Your task to perform on an android device: turn on wifi Image 0: 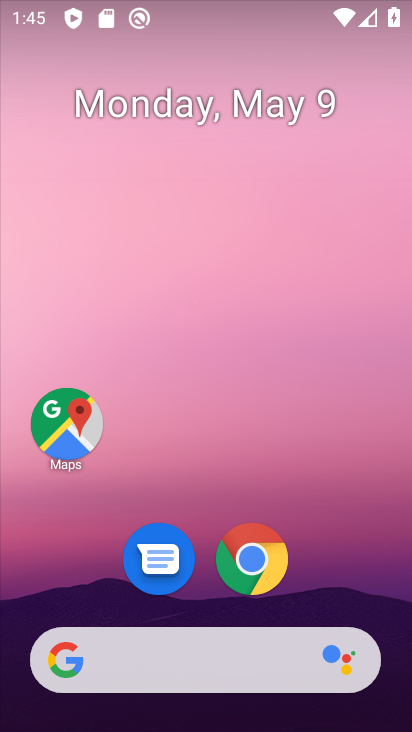
Step 0: click (357, 515)
Your task to perform on an android device: turn on wifi Image 1: 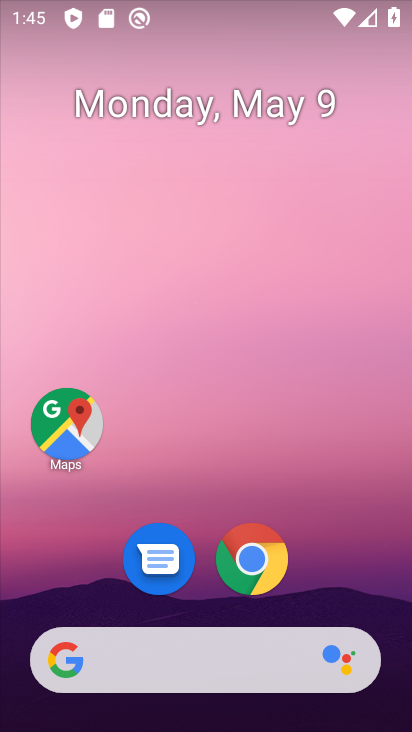
Step 1: drag from (380, 565) to (301, 145)
Your task to perform on an android device: turn on wifi Image 2: 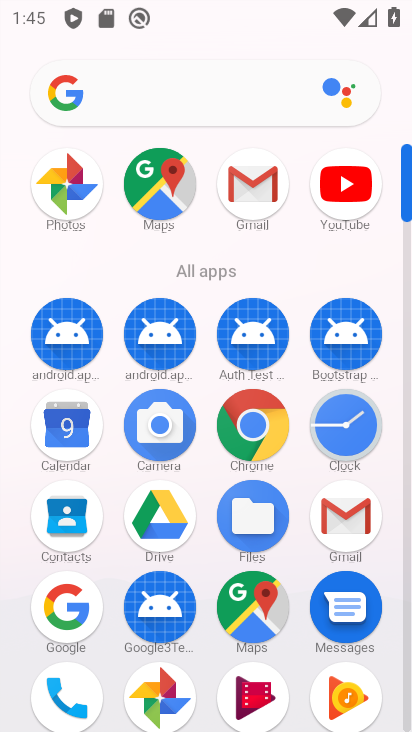
Step 2: drag from (210, 565) to (221, 209)
Your task to perform on an android device: turn on wifi Image 3: 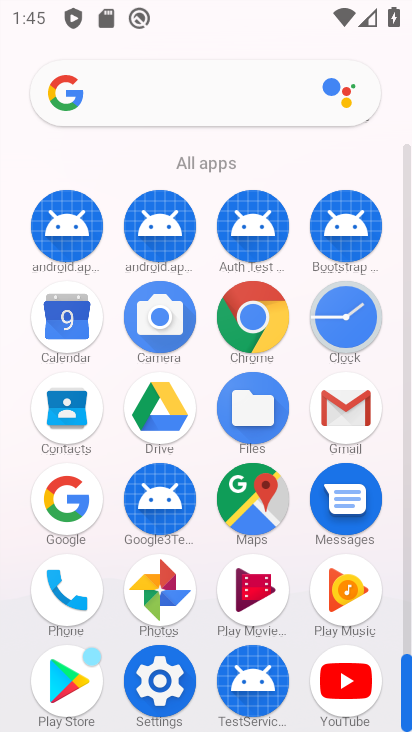
Step 3: click (135, 670)
Your task to perform on an android device: turn on wifi Image 4: 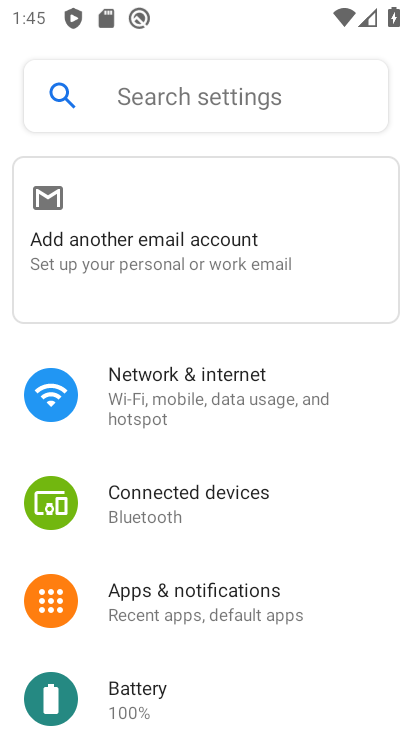
Step 4: click (206, 385)
Your task to perform on an android device: turn on wifi Image 5: 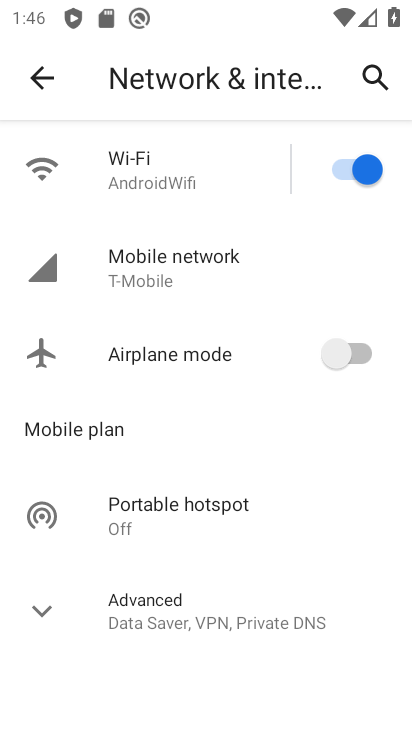
Step 5: press home button
Your task to perform on an android device: turn on wifi Image 6: 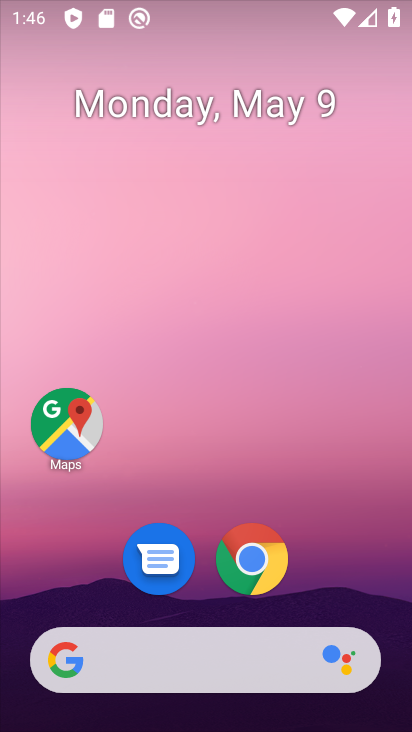
Step 6: drag from (337, 379) to (281, 57)
Your task to perform on an android device: turn on wifi Image 7: 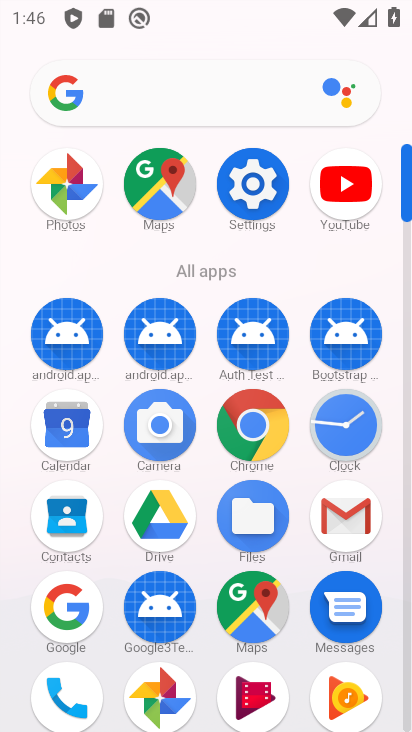
Step 7: click (246, 166)
Your task to perform on an android device: turn on wifi Image 8: 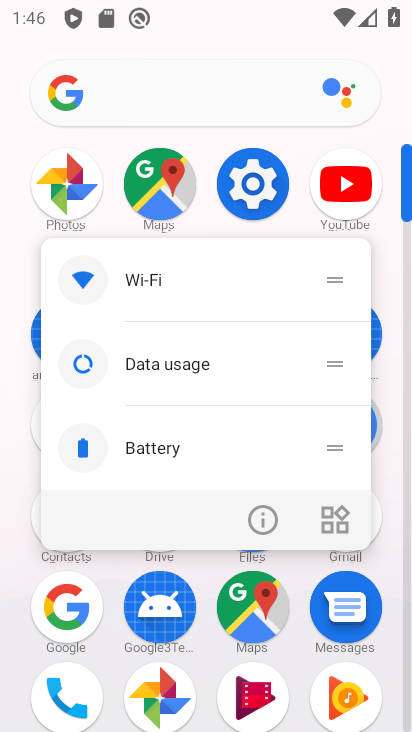
Step 8: click (247, 178)
Your task to perform on an android device: turn on wifi Image 9: 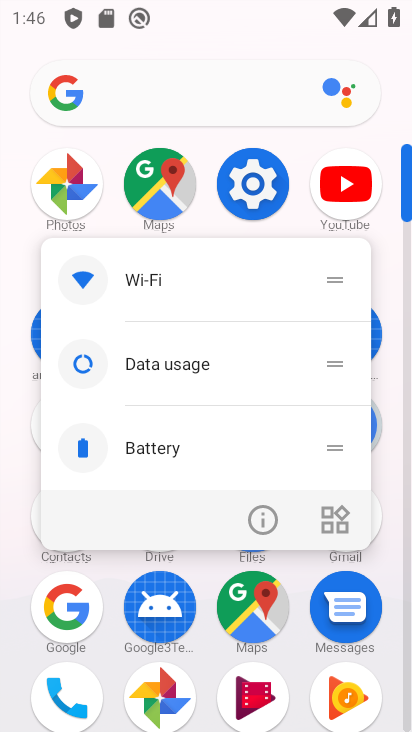
Step 9: click (245, 207)
Your task to perform on an android device: turn on wifi Image 10: 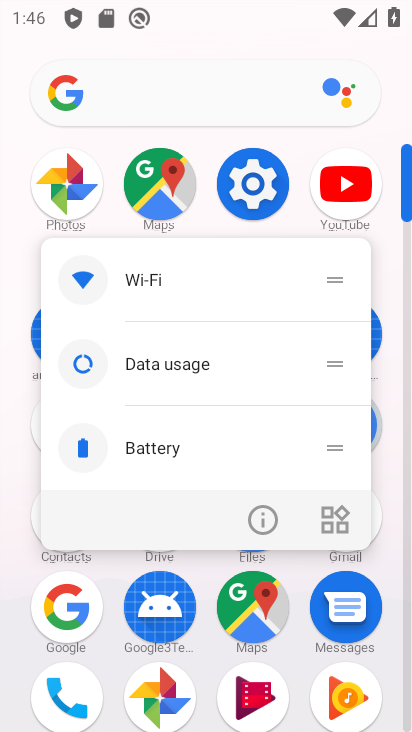
Step 10: click (247, 208)
Your task to perform on an android device: turn on wifi Image 11: 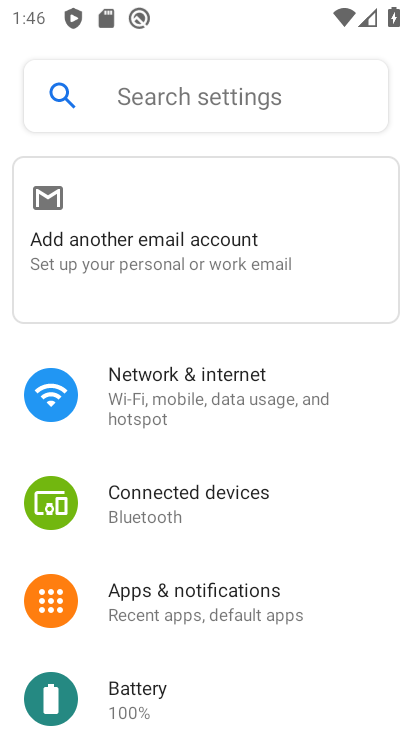
Step 11: click (252, 396)
Your task to perform on an android device: turn on wifi Image 12: 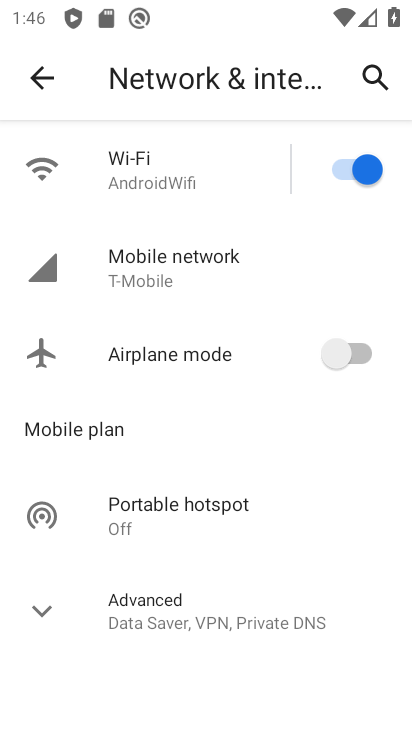
Step 12: task complete